Your task to perform on an android device: check google app version Image 0: 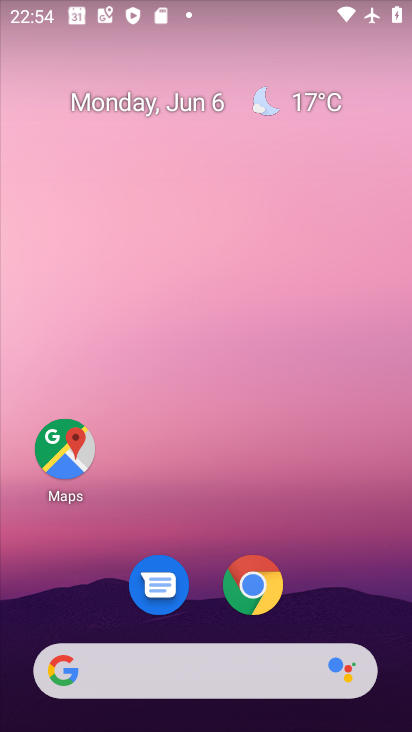
Step 0: click (193, 673)
Your task to perform on an android device: check google app version Image 1: 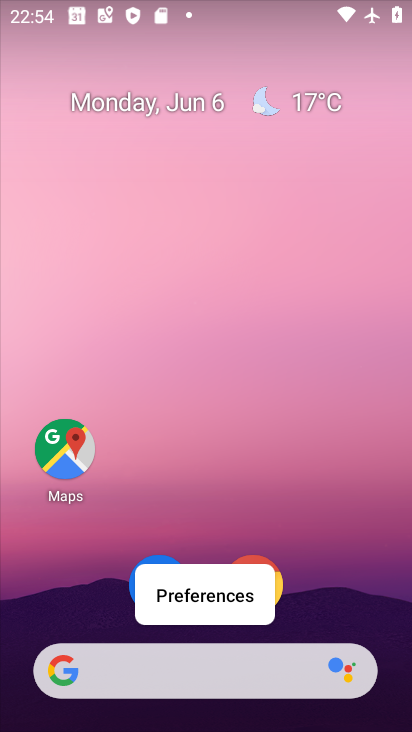
Step 1: click (193, 673)
Your task to perform on an android device: check google app version Image 2: 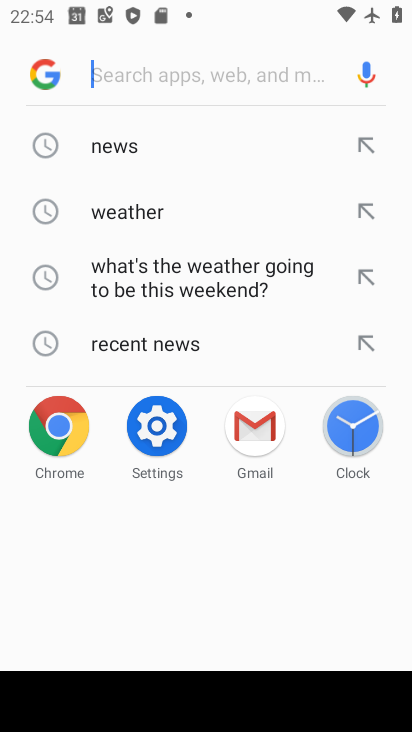
Step 2: click (51, 83)
Your task to perform on an android device: check google app version Image 3: 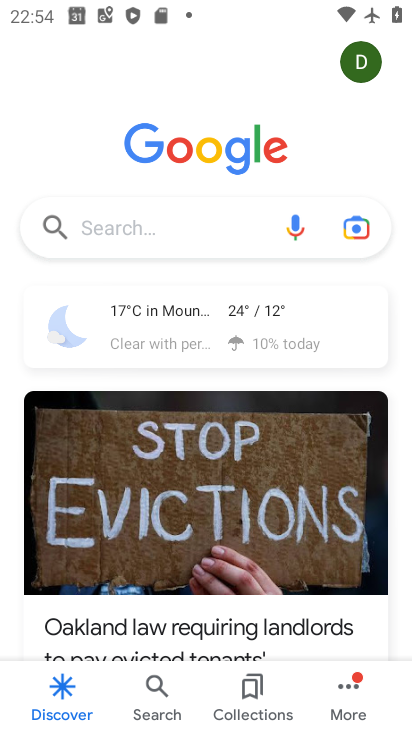
Step 3: click (355, 689)
Your task to perform on an android device: check google app version Image 4: 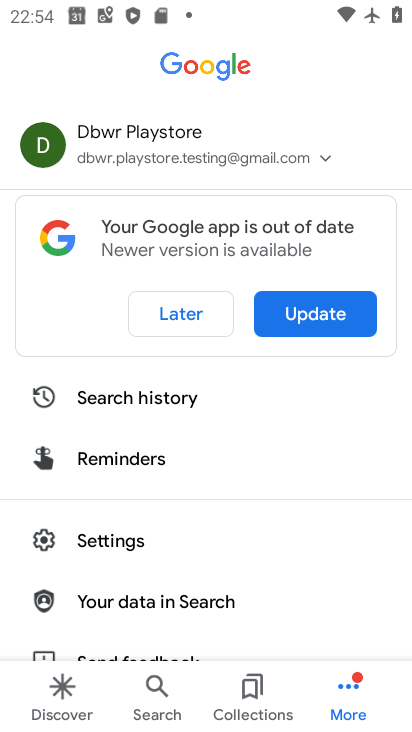
Step 4: click (140, 536)
Your task to perform on an android device: check google app version Image 5: 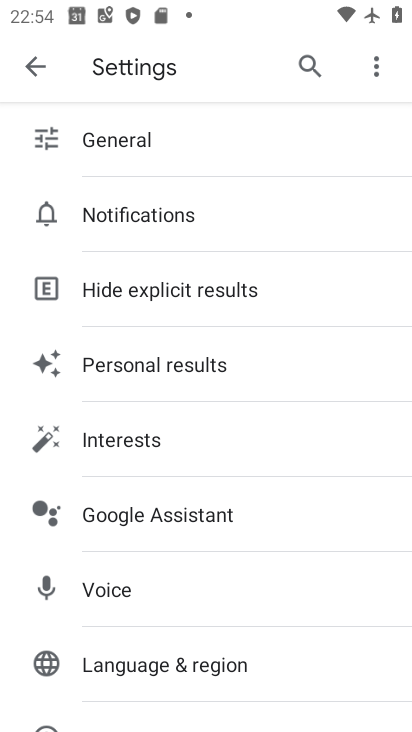
Step 5: drag from (235, 583) to (282, 227)
Your task to perform on an android device: check google app version Image 6: 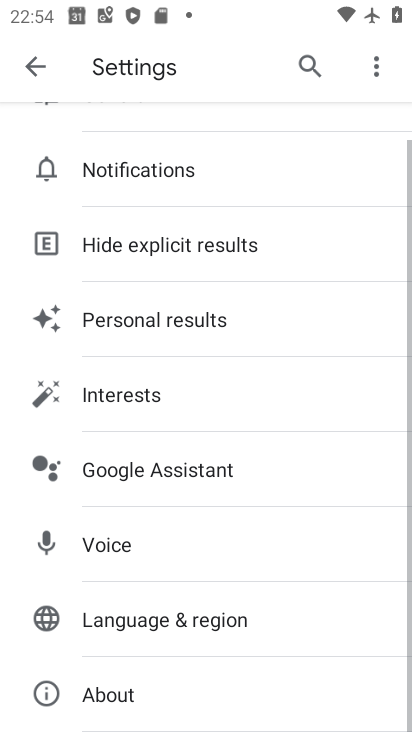
Step 6: click (171, 684)
Your task to perform on an android device: check google app version Image 7: 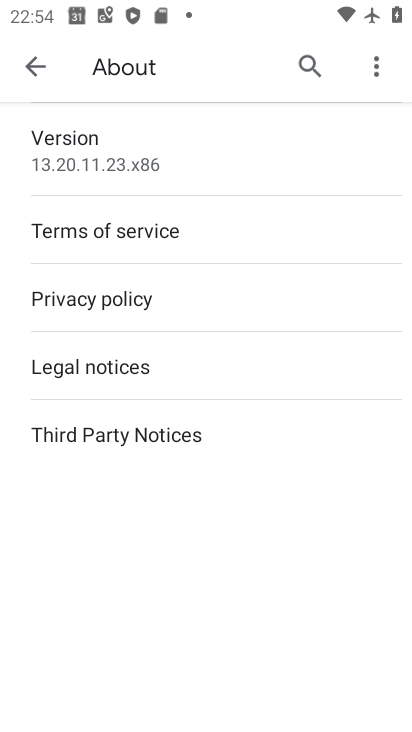
Step 7: task complete